Your task to perform on an android device: Go to network settings Image 0: 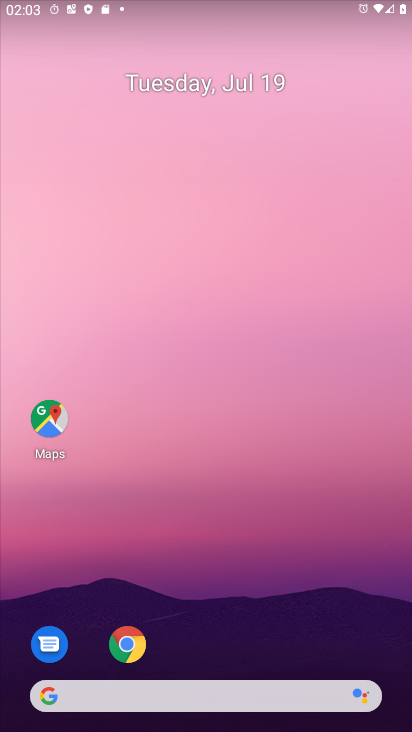
Step 0: drag from (216, 728) to (214, 181)
Your task to perform on an android device: Go to network settings Image 1: 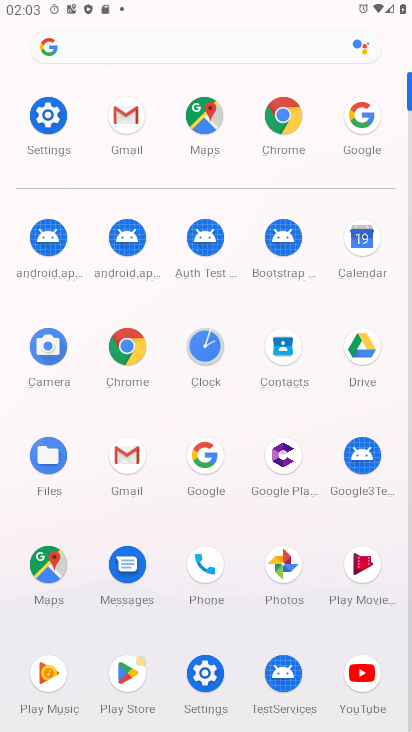
Step 1: click (205, 676)
Your task to perform on an android device: Go to network settings Image 2: 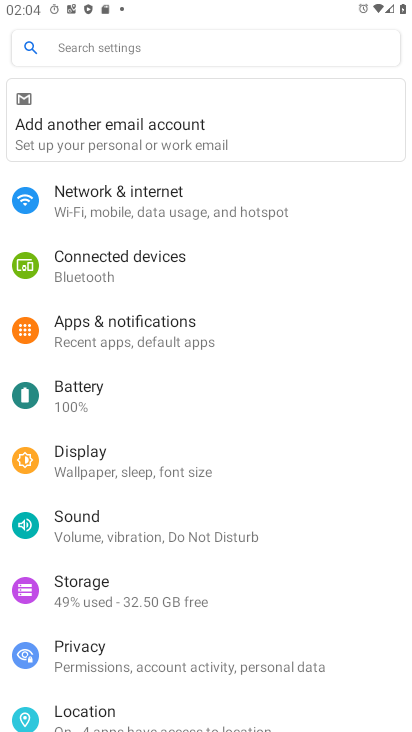
Step 2: click (98, 196)
Your task to perform on an android device: Go to network settings Image 3: 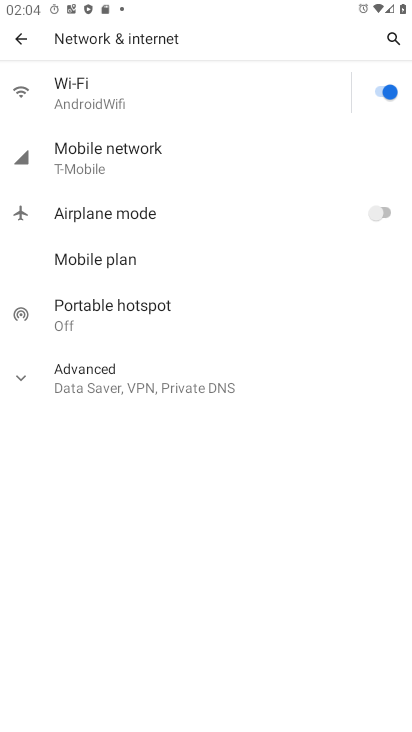
Step 3: task complete